Your task to perform on an android device: make emails show in primary in the gmail app Image 0: 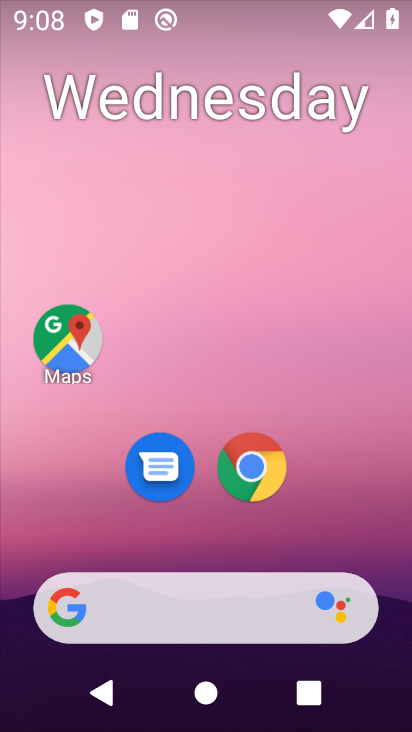
Step 0: drag from (307, 525) to (236, 27)
Your task to perform on an android device: make emails show in primary in the gmail app Image 1: 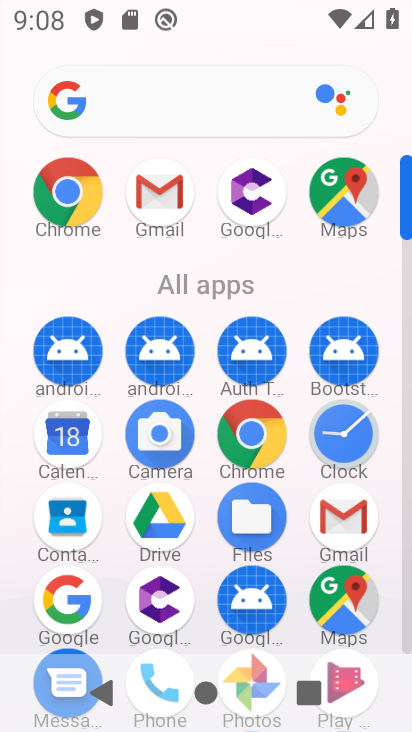
Step 1: click (174, 168)
Your task to perform on an android device: make emails show in primary in the gmail app Image 2: 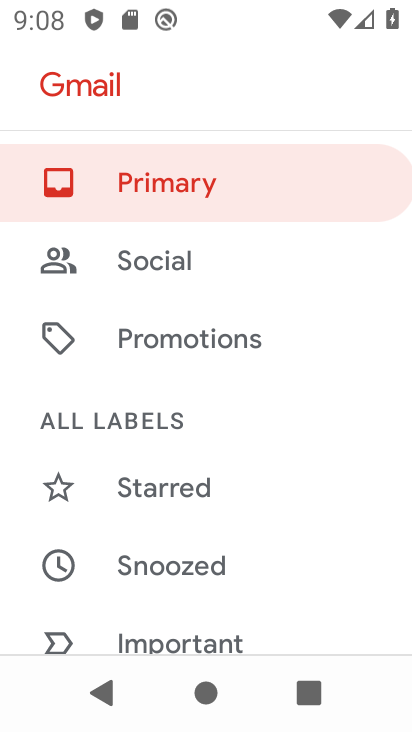
Step 2: click (210, 191)
Your task to perform on an android device: make emails show in primary in the gmail app Image 3: 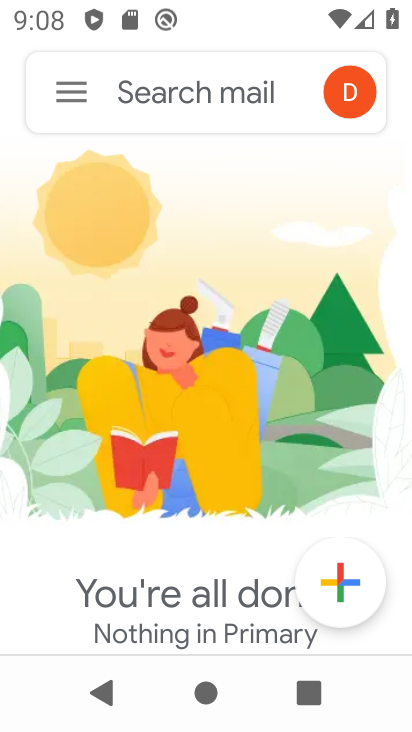
Step 3: task complete